Your task to perform on an android device: move an email to a new category in the gmail app Image 0: 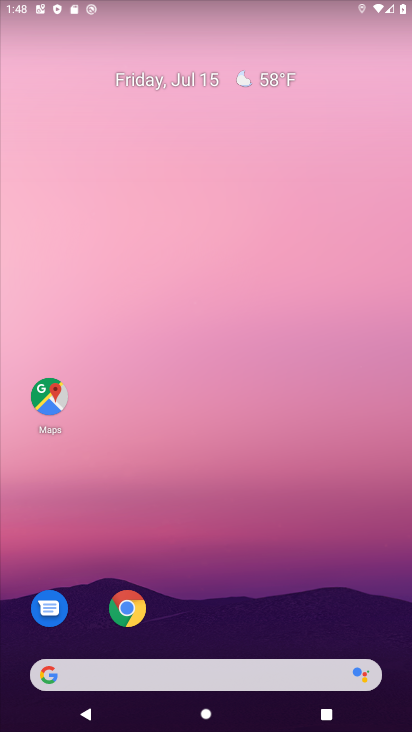
Step 0: drag from (319, 589) to (294, 127)
Your task to perform on an android device: move an email to a new category in the gmail app Image 1: 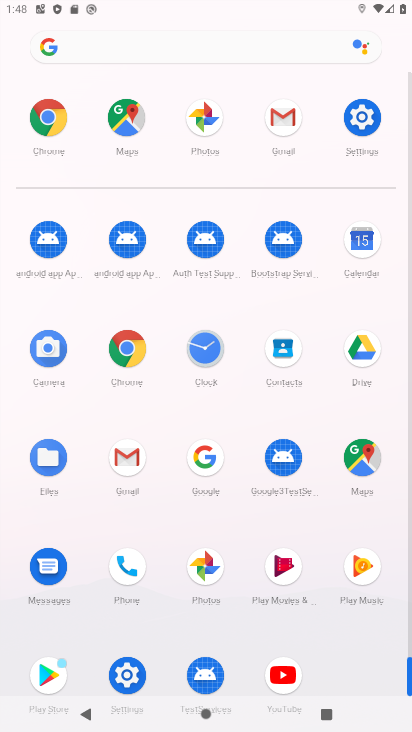
Step 1: click (130, 459)
Your task to perform on an android device: move an email to a new category in the gmail app Image 2: 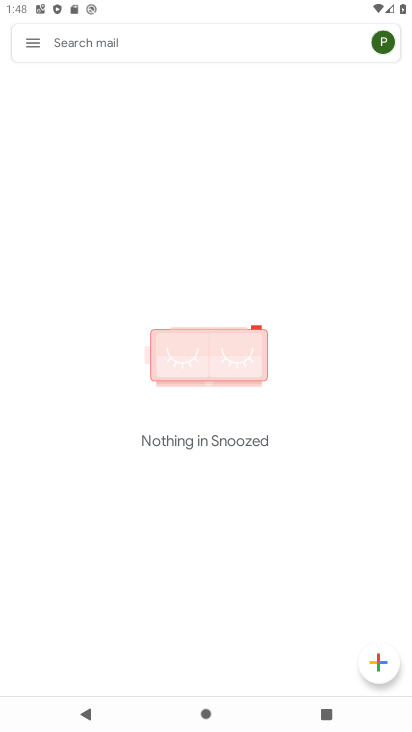
Step 2: click (30, 51)
Your task to perform on an android device: move an email to a new category in the gmail app Image 3: 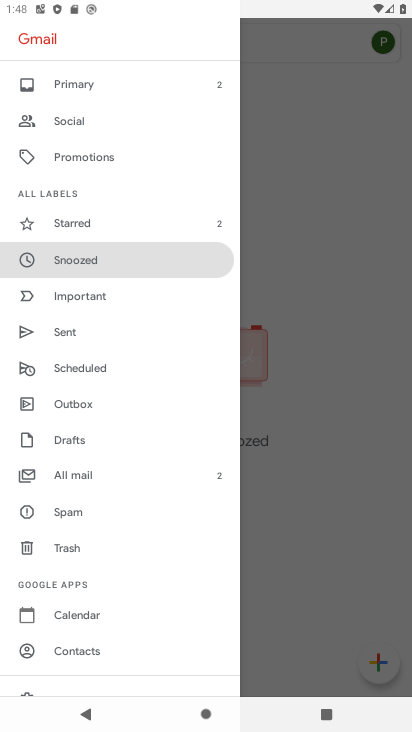
Step 3: click (71, 89)
Your task to perform on an android device: move an email to a new category in the gmail app Image 4: 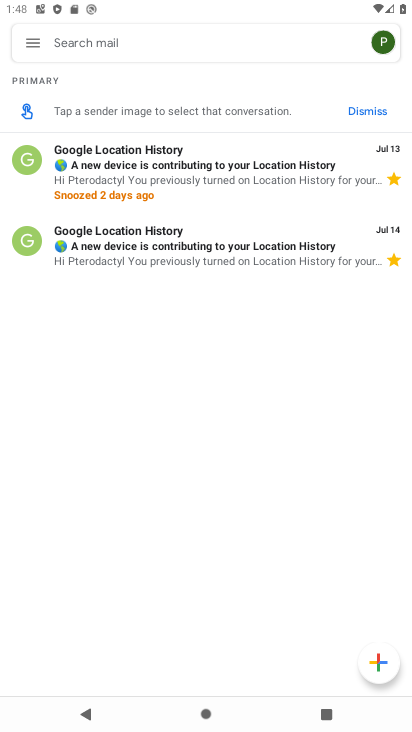
Step 4: click (35, 162)
Your task to perform on an android device: move an email to a new category in the gmail app Image 5: 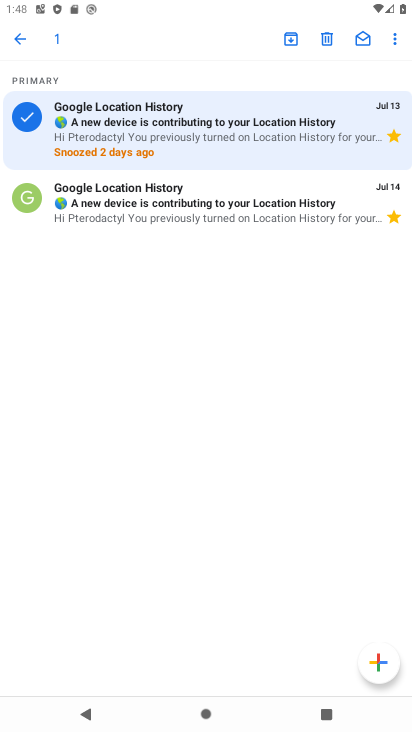
Step 5: click (388, 38)
Your task to perform on an android device: move an email to a new category in the gmail app Image 6: 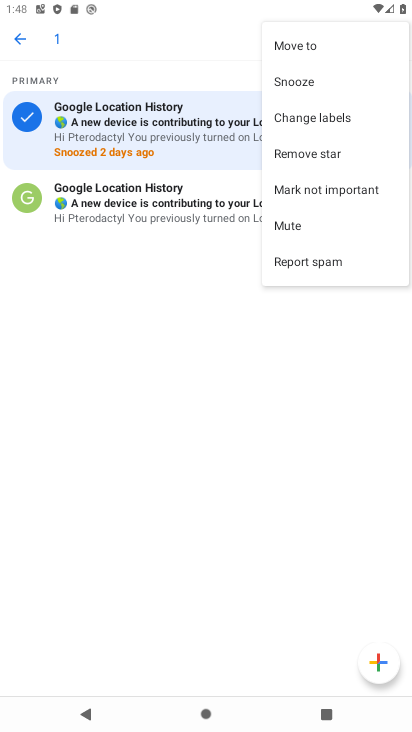
Step 6: click (290, 40)
Your task to perform on an android device: move an email to a new category in the gmail app Image 7: 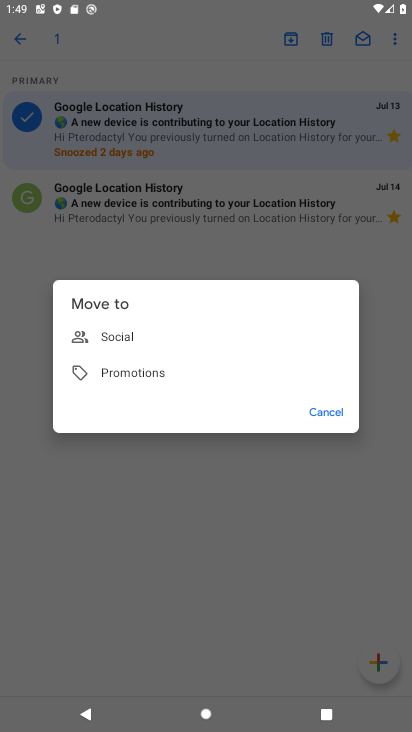
Step 7: click (155, 372)
Your task to perform on an android device: move an email to a new category in the gmail app Image 8: 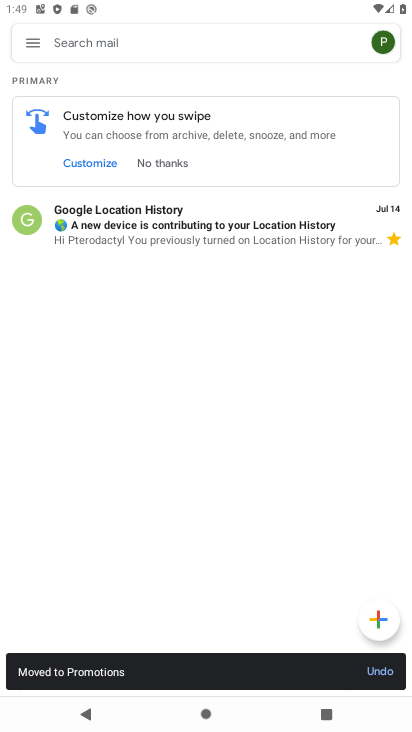
Step 8: task complete